Your task to perform on an android device: Search for Italian restaurants on Maps Image 0: 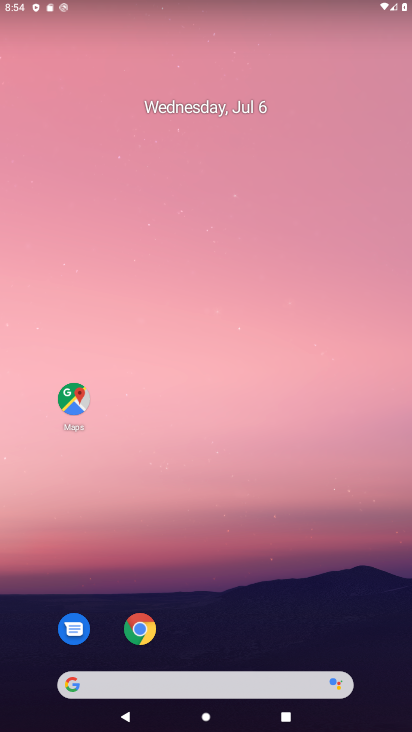
Step 0: drag from (217, 645) to (209, 209)
Your task to perform on an android device: Search for Italian restaurants on Maps Image 1: 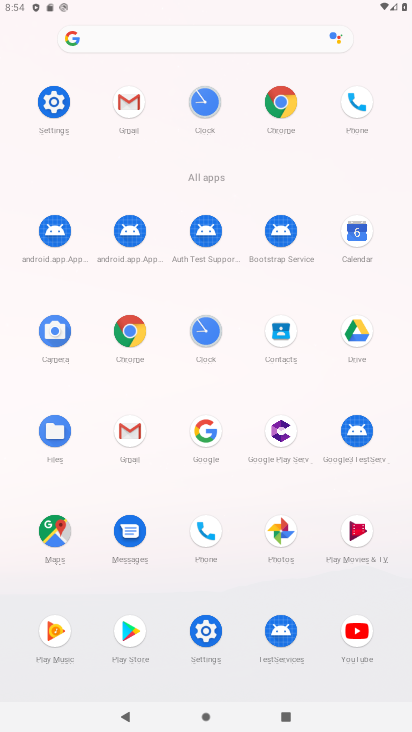
Step 1: click (47, 525)
Your task to perform on an android device: Search for Italian restaurants on Maps Image 2: 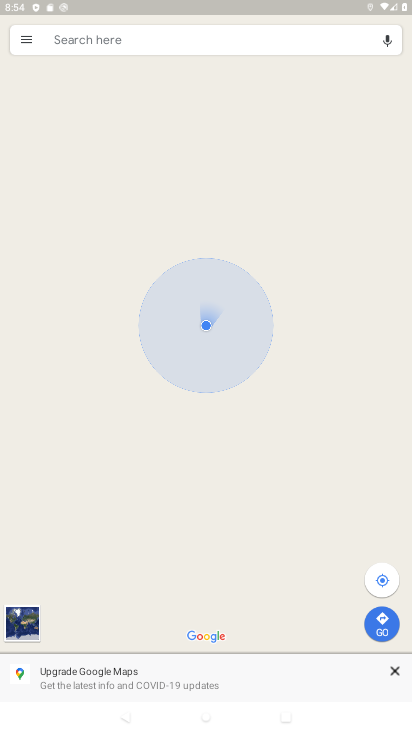
Step 2: click (151, 41)
Your task to perform on an android device: Search for Italian restaurants on Maps Image 3: 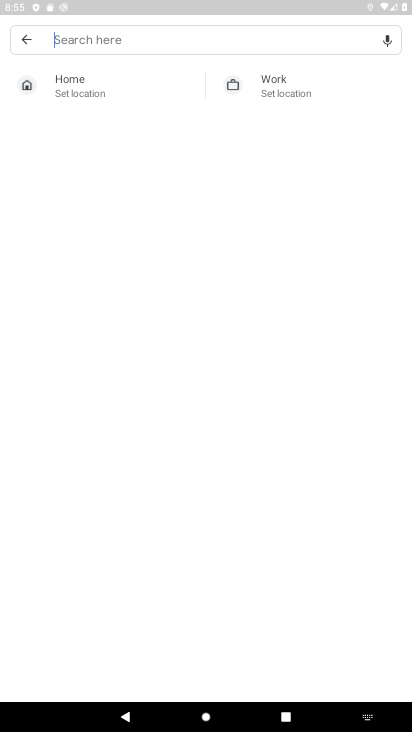
Step 3: type "Italian restaurants "
Your task to perform on an android device: Search for Italian restaurants on Maps Image 4: 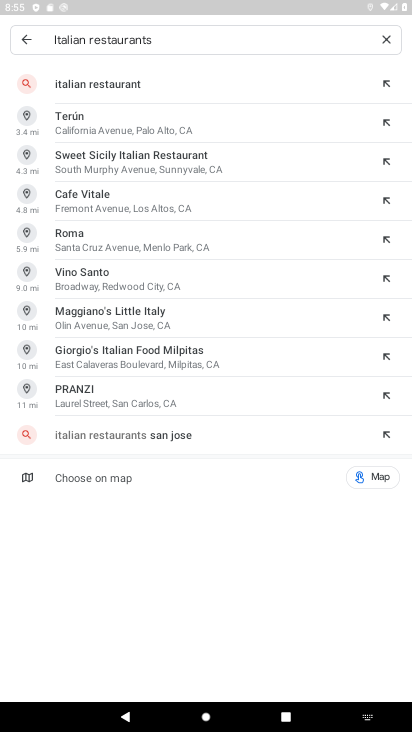
Step 4: click (135, 85)
Your task to perform on an android device: Search for Italian restaurants on Maps Image 5: 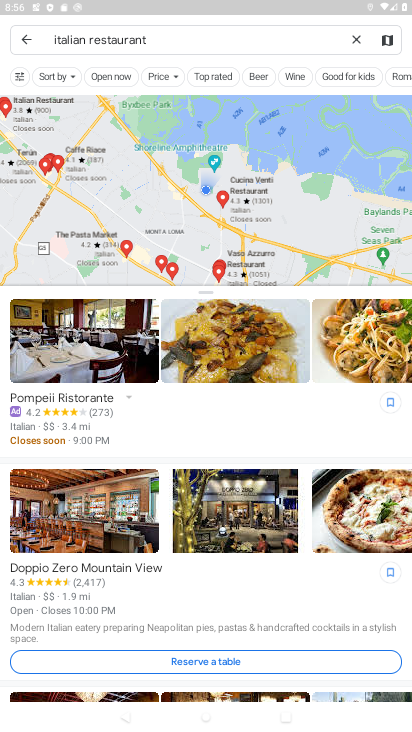
Step 5: task complete